Your task to perform on an android device: Go to eBay Image 0: 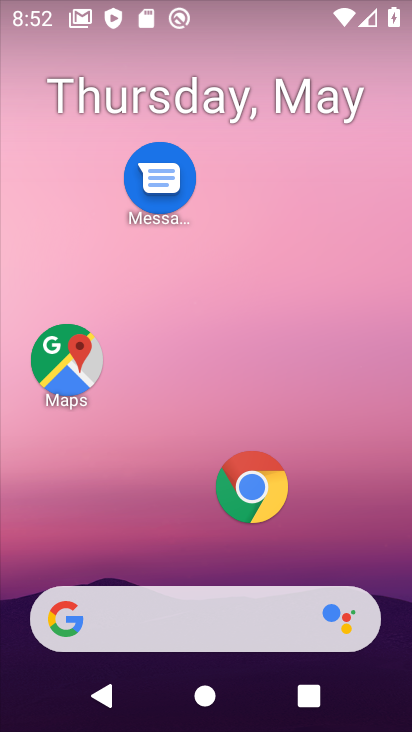
Step 0: click (240, 496)
Your task to perform on an android device: Go to eBay Image 1: 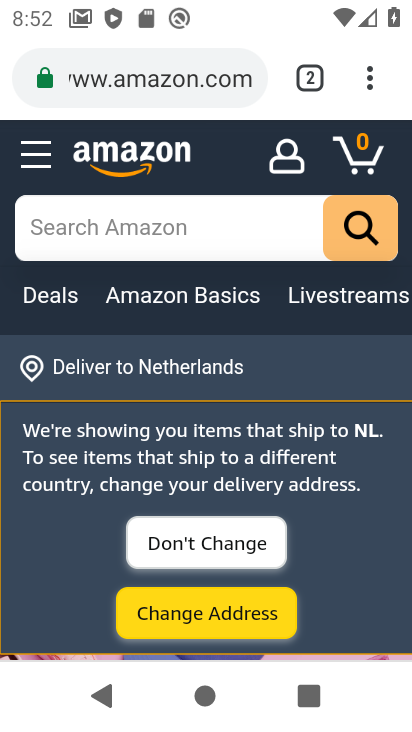
Step 1: click (290, 68)
Your task to perform on an android device: Go to eBay Image 2: 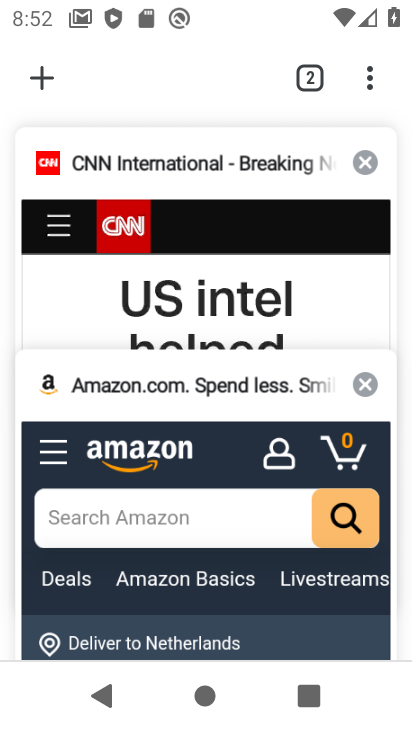
Step 2: click (44, 82)
Your task to perform on an android device: Go to eBay Image 3: 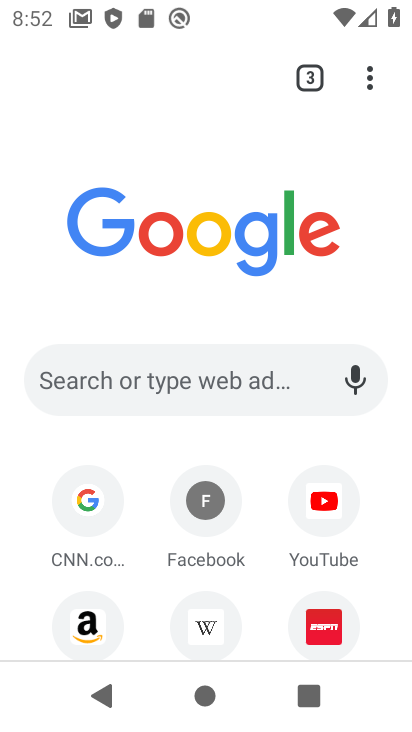
Step 3: click (210, 393)
Your task to perform on an android device: Go to eBay Image 4: 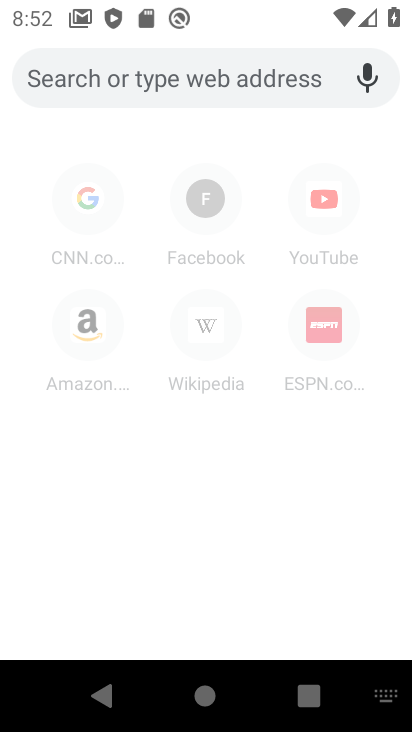
Step 4: type "ebay"
Your task to perform on an android device: Go to eBay Image 5: 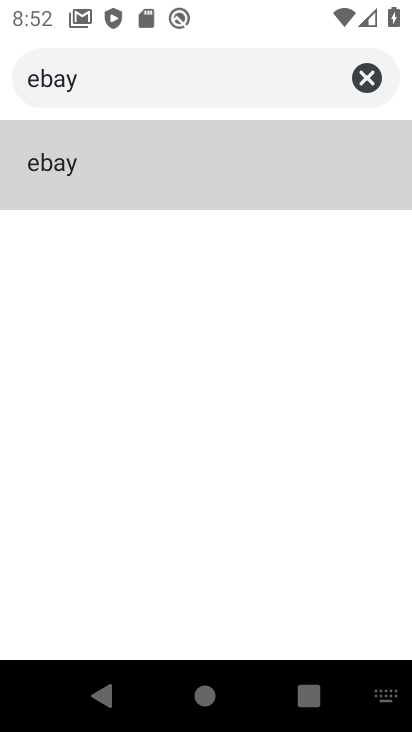
Step 5: click (198, 204)
Your task to perform on an android device: Go to eBay Image 6: 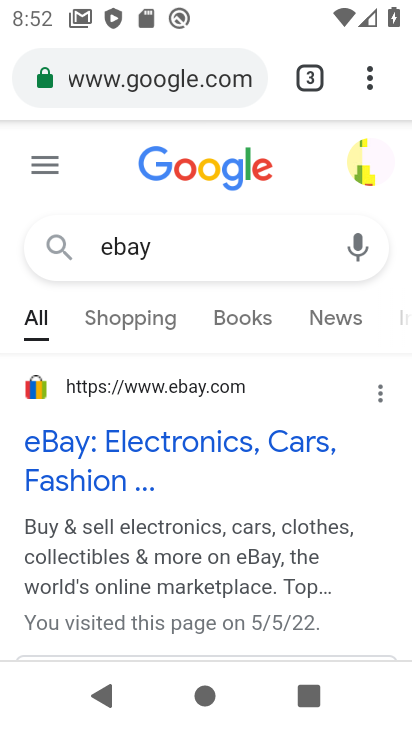
Step 6: click (135, 470)
Your task to perform on an android device: Go to eBay Image 7: 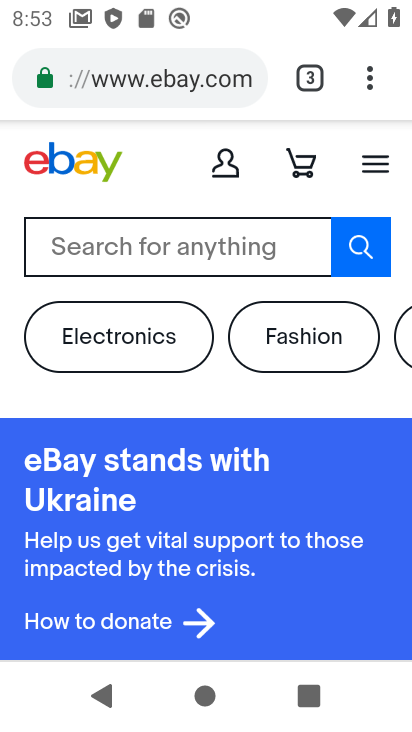
Step 7: task complete